Your task to perform on an android device: Open Youtube and go to "Your channel" Image 0: 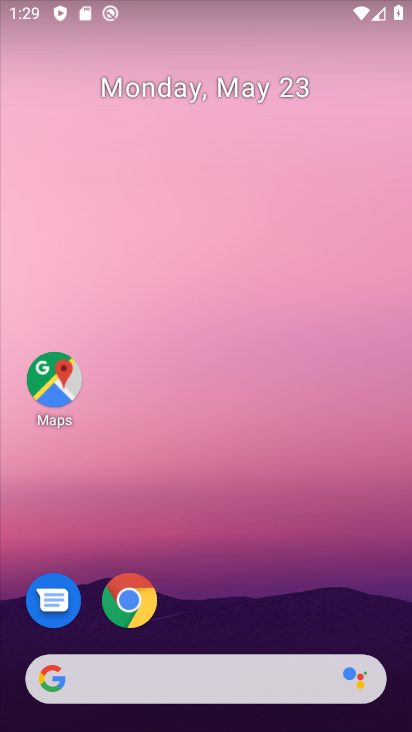
Step 0: drag from (280, 618) to (222, 164)
Your task to perform on an android device: Open Youtube and go to "Your channel" Image 1: 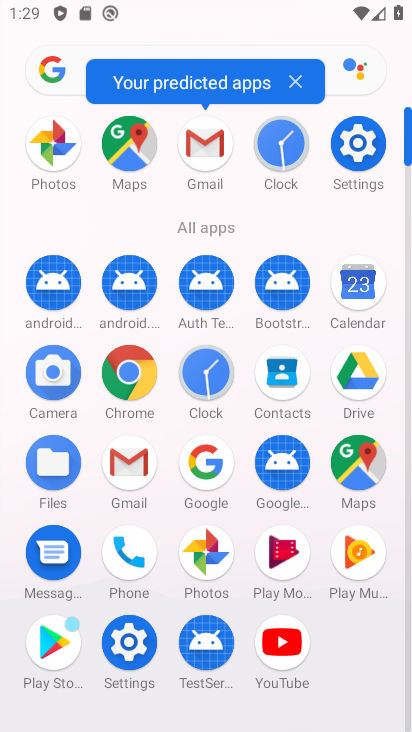
Step 1: click (293, 654)
Your task to perform on an android device: Open Youtube and go to "Your channel" Image 2: 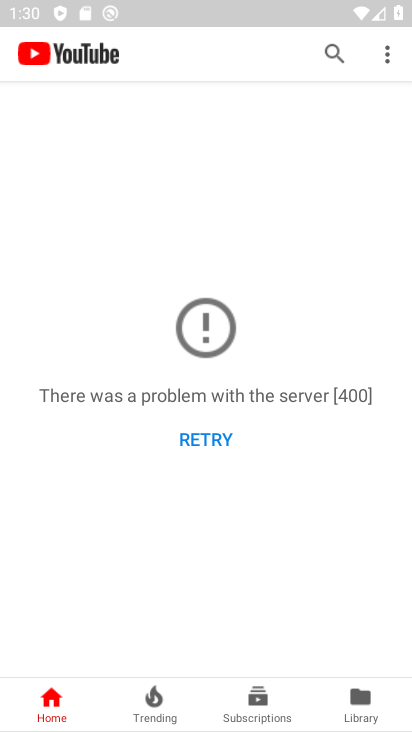
Step 2: click (368, 696)
Your task to perform on an android device: Open Youtube and go to "Your channel" Image 3: 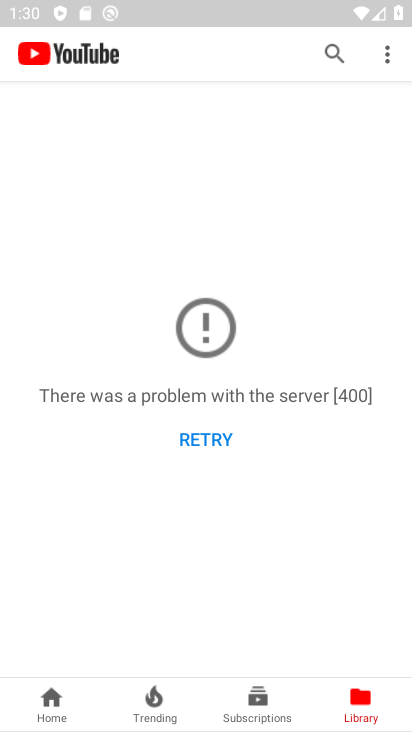
Step 3: click (384, 54)
Your task to perform on an android device: Open Youtube and go to "Your channel" Image 4: 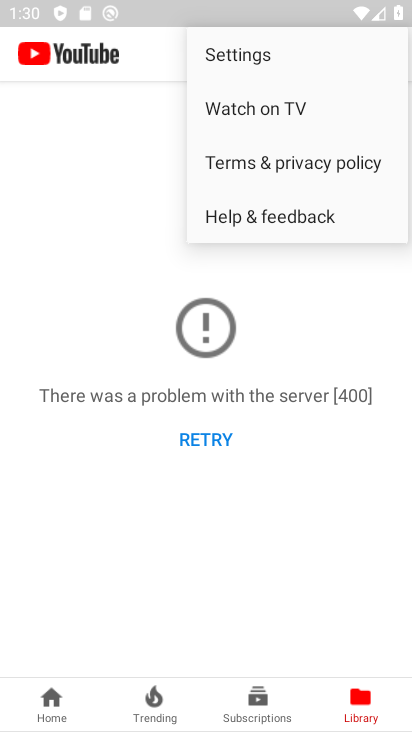
Step 4: task complete